Your task to perform on an android device: change the upload size in google photos Image 0: 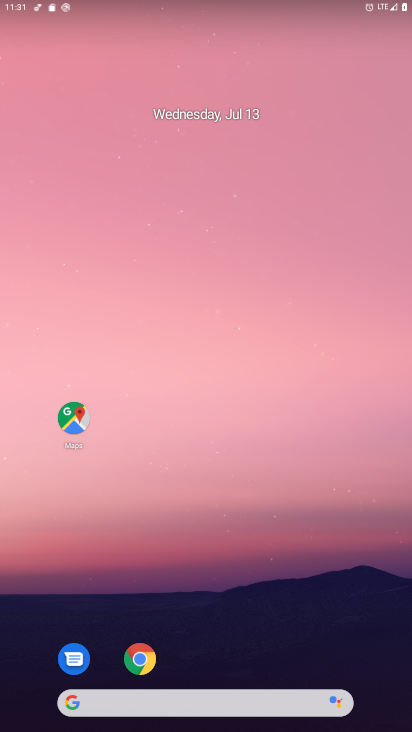
Step 0: press home button
Your task to perform on an android device: change the upload size in google photos Image 1: 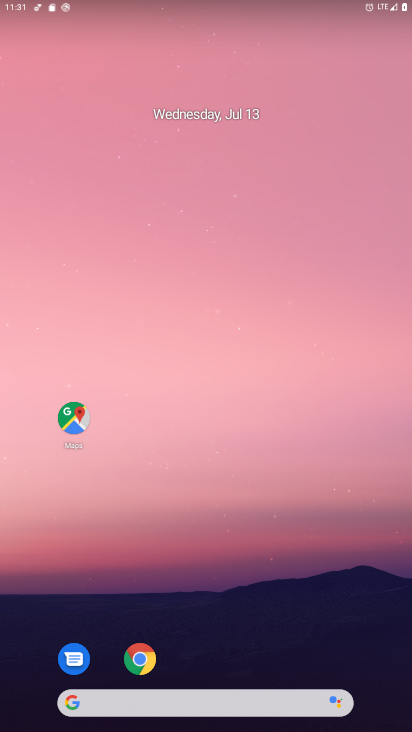
Step 1: drag from (209, 674) to (194, 48)
Your task to perform on an android device: change the upload size in google photos Image 2: 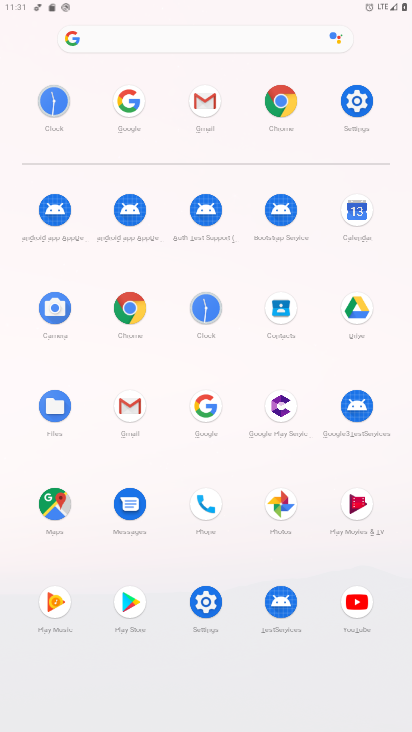
Step 2: click (279, 497)
Your task to perform on an android device: change the upload size in google photos Image 3: 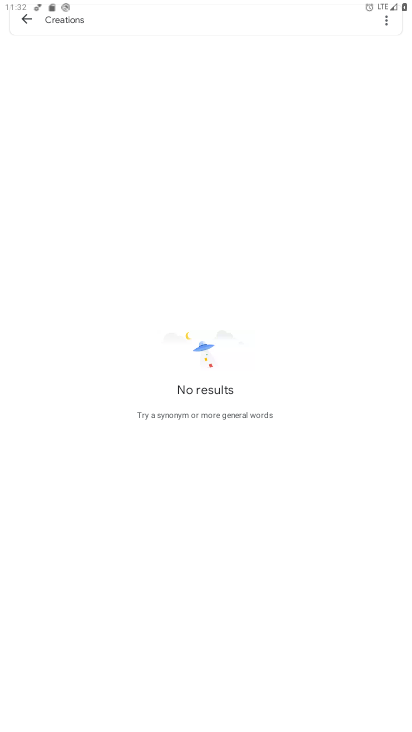
Step 3: click (23, 20)
Your task to perform on an android device: change the upload size in google photos Image 4: 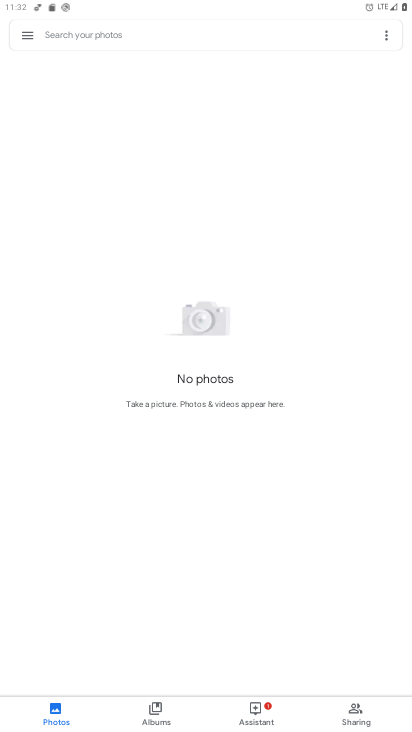
Step 4: click (386, 32)
Your task to perform on an android device: change the upload size in google photos Image 5: 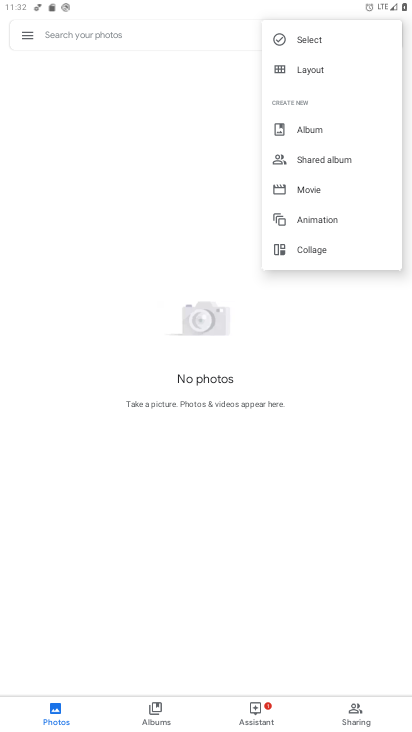
Step 5: click (176, 473)
Your task to perform on an android device: change the upload size in google photos Image 6: 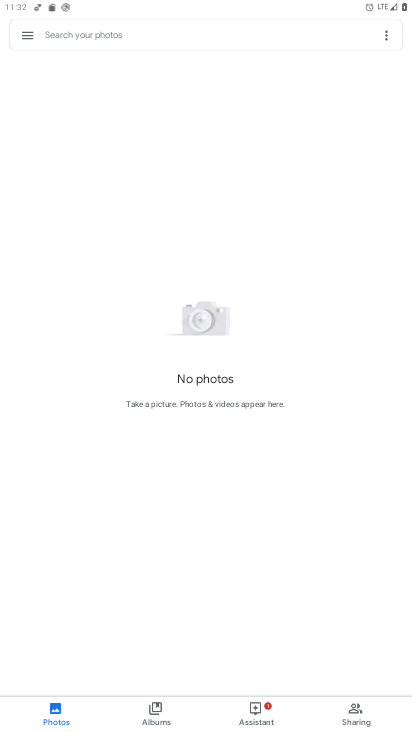
Step 6: click (23, 36)
Your task to perform on an android device: change the upload size in google photos Image 7: 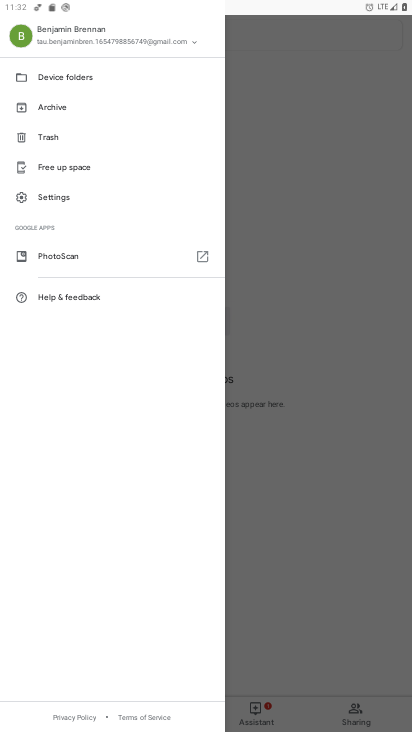
Step 7: click (75, 194)
Your task to perform on an android device: change the upload size in google photos Image 8: 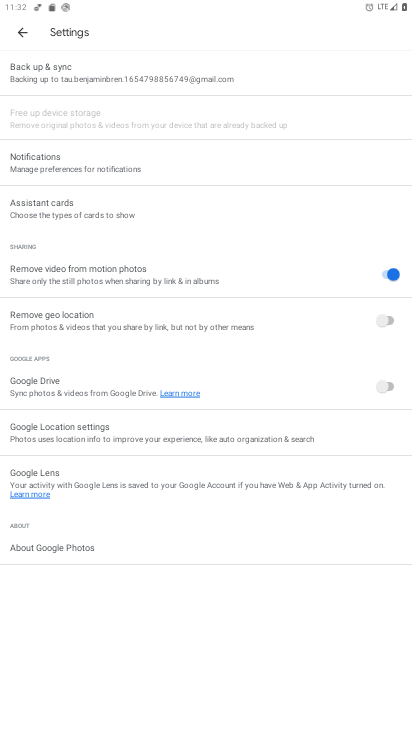
Step 8: click (82, 66)
Your task to perform on an android device: change the upload size in google photos Image 9: 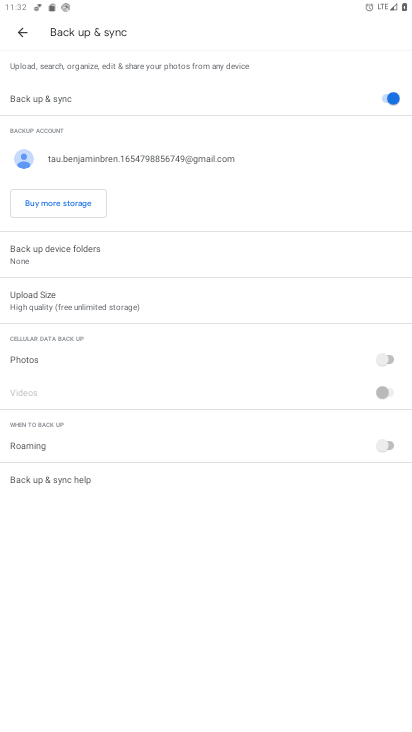
Step 9: click (67, 291)
Your task to perform on an android device: change the upload size in google photos Image 10: 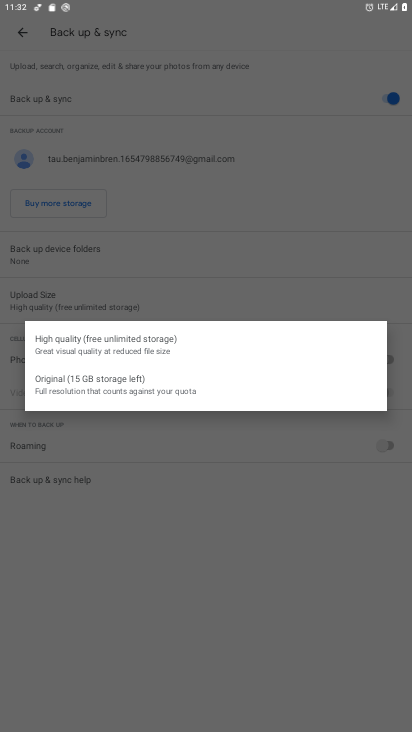
Step 10: click (110, 344)
Your task to perform on an android device: change the upload size in google photos Image 11: 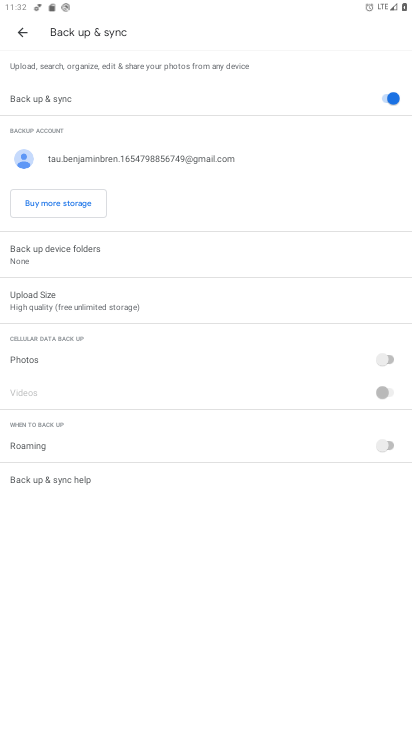
Step 11: task complete